Your task to perform on an android device: turn off data saver in the chrome app Image 0: 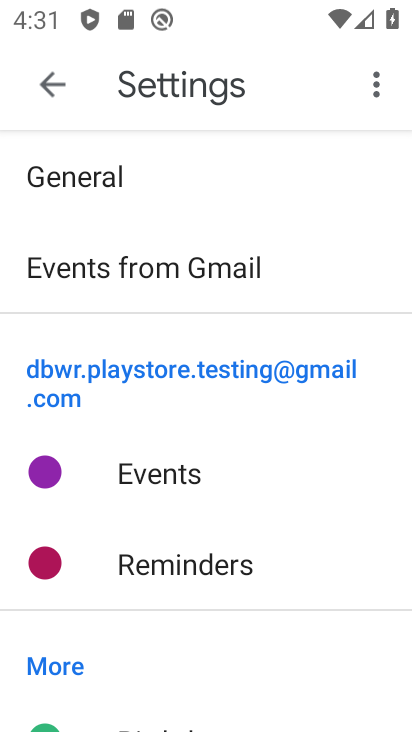
Step 0: press back button
Your task to perform on an android device: turn off data saver in the chrome app Image 1: 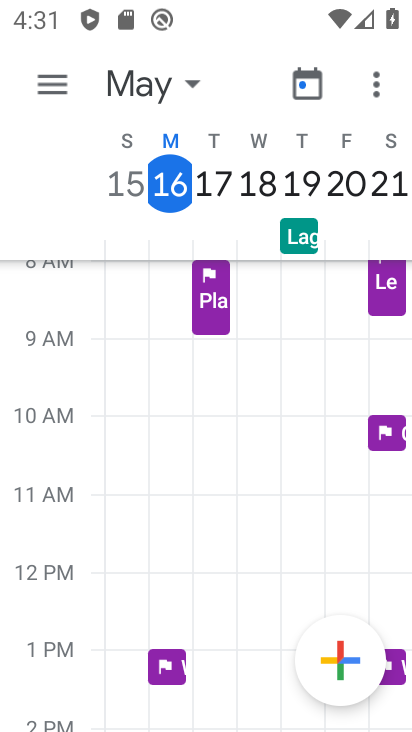
Step 1: press back button
Your task to perform on an android device: turn off data saver in the chrome app Image 2: 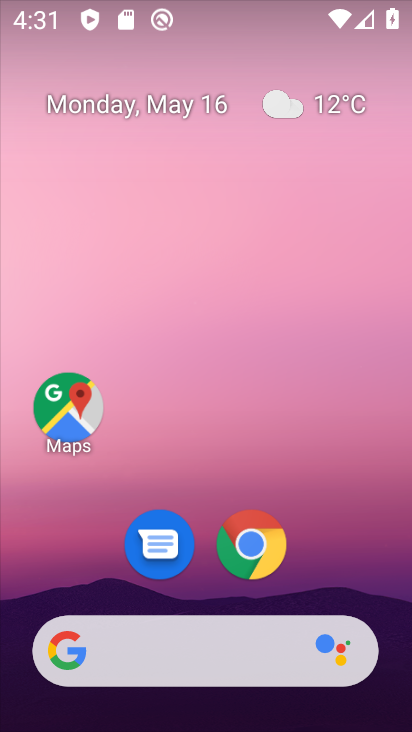
Step 2: click (250, 544)
Your task to perform on an android device: turn off data saver in the chrome app Image 3: 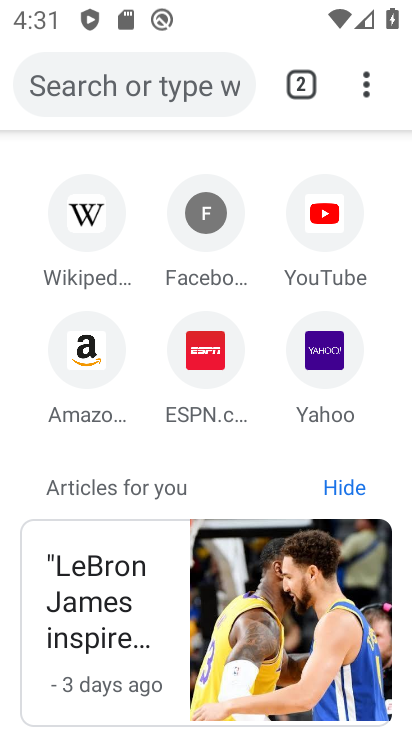
Step 3: click (365, 89)
Your task to perform on an android device: turn off data saver in the chrome app Image 4: 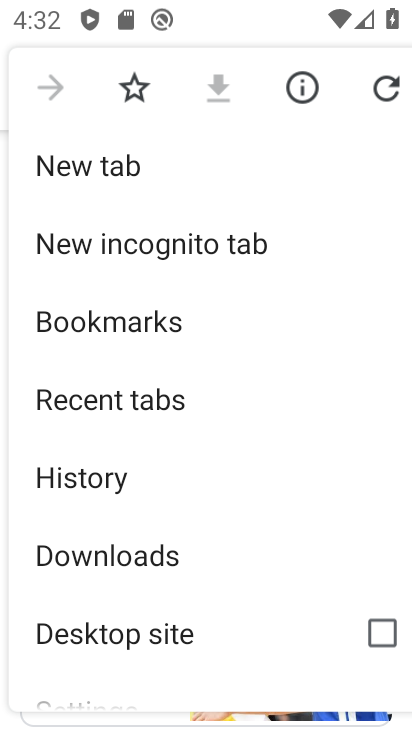
Step 4: drag from (144, 510) to (219, 396)
Your task to perform on an android device: turn off data saver in the chrome app Image 5: 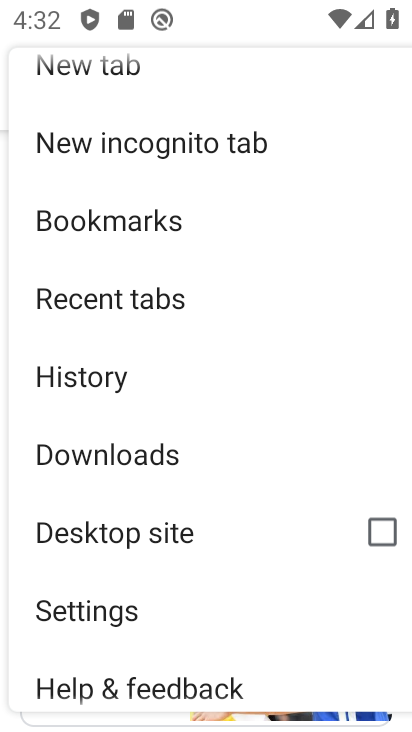
Step 5: drag from (121, 507) to (206, 411)
Your task to perform on an android device: turn off data saver in the chrome app Image 6: 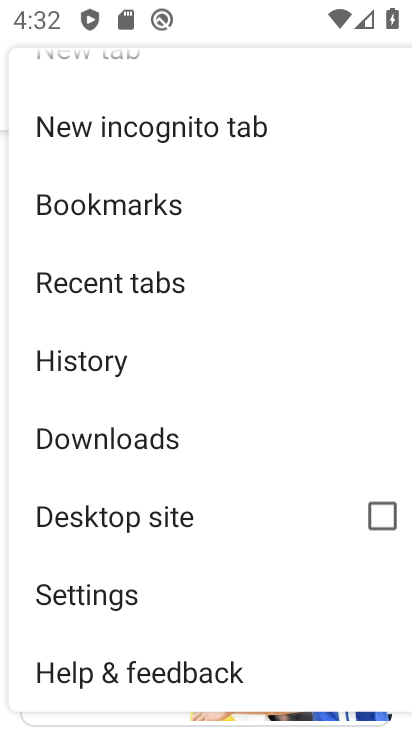
Step 6: click (88, 601)
Your task to perform on an android device: turn off data saver in the chrome app Image 7: 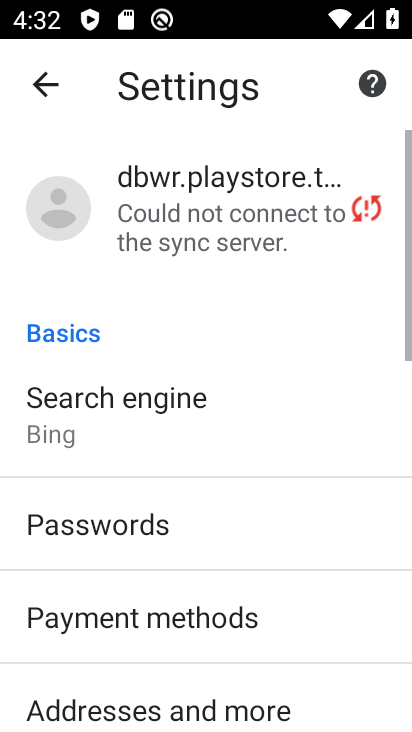
Step 7: drag from (125, 614) to (227, 466)
Your task to perform on an android device: turn off data saver in the chrome app Image 8: 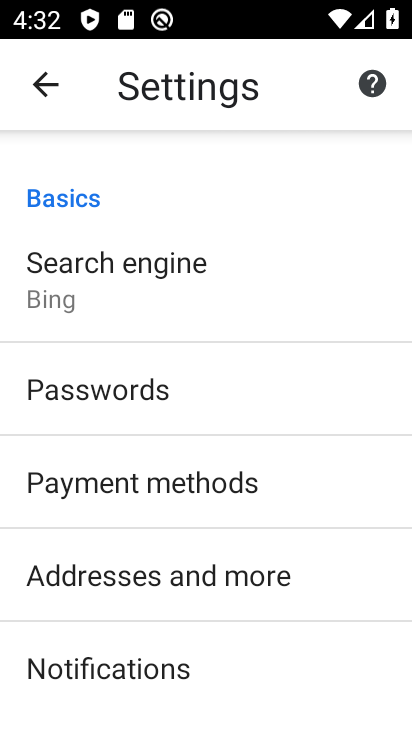
Step 8: drag from (134, 605) to (195, 507)
Your task to perform on an android device: turn off data saver in the chrome app Image 9: 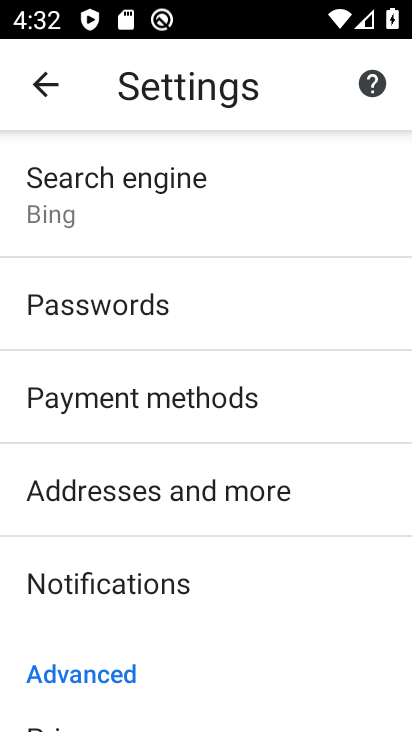
Step 9: drag from (131, 635) to (216, 524)
Your task to perform on an android device: turn off data saver in the chrome app Image 10: 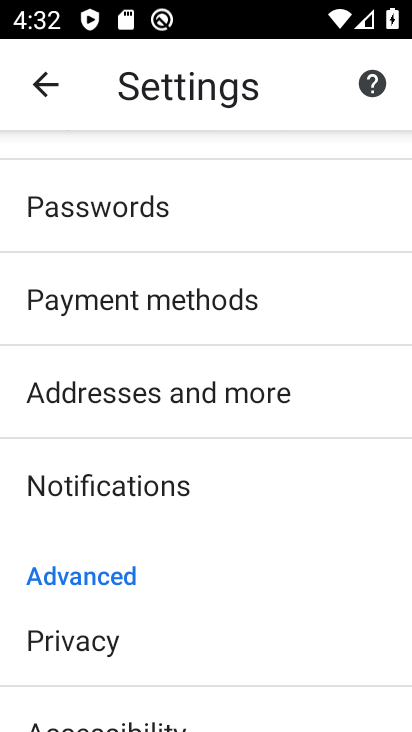
Step 10: drag from (142, 653) to (233, 522)
Your task to perform on an android device: turn off data saver in the chrome app Image 11: 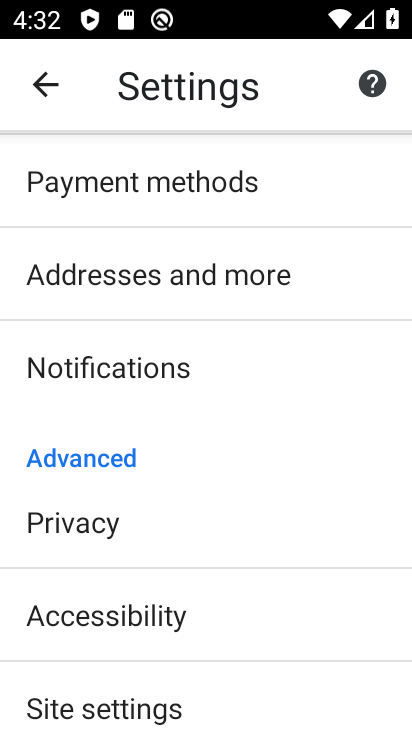
Step 11: drag from (139, 638) to (241, 514)
Your task to perform on an android device: turn off data saver in the chrome app Image 12: 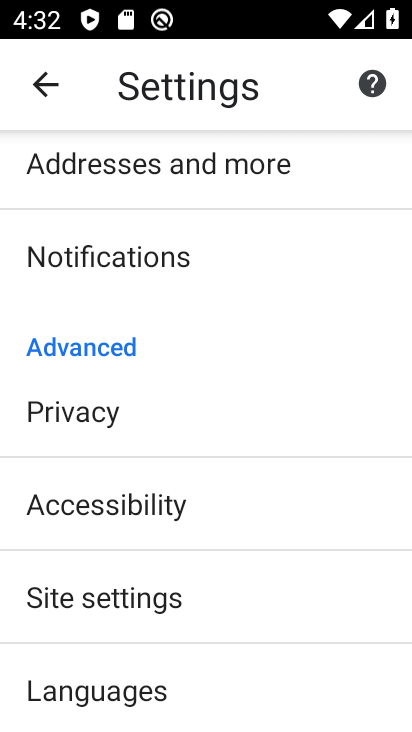
Step 12: drag from (148, 636) to (273, 496)
Your task to perform on an android device: turn off data saver in the chrome app Image 13: 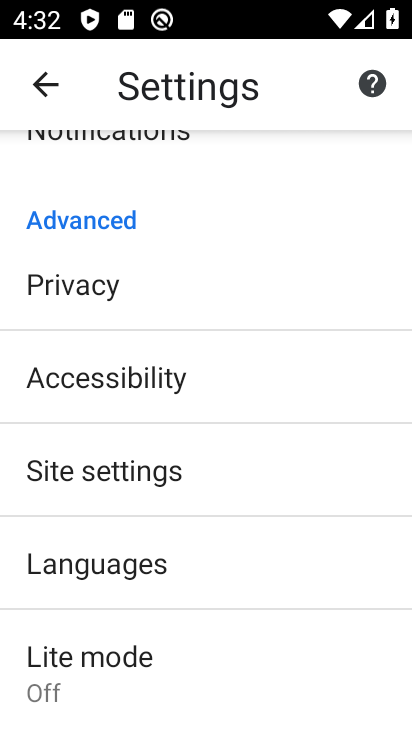
Step 13: click (123, 658)
Your task to perform on an android device: turn off data saver in the chrome app Image 14: 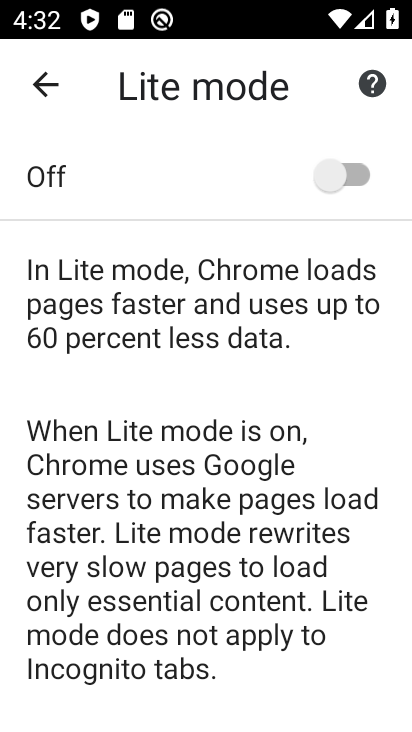
Step 14: task complete